Your task to perform on an android device: open device folders in google photos Image 0: 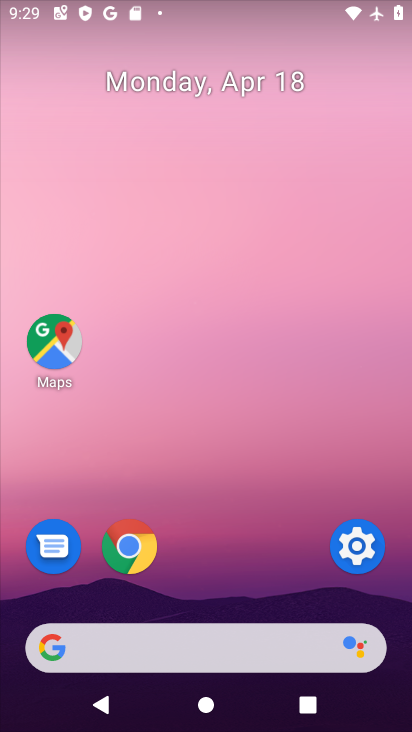
Step 0: drag from (273, 529) to (220, 127)
Your task to perform on an android device: open device folders in google photos Image 1: 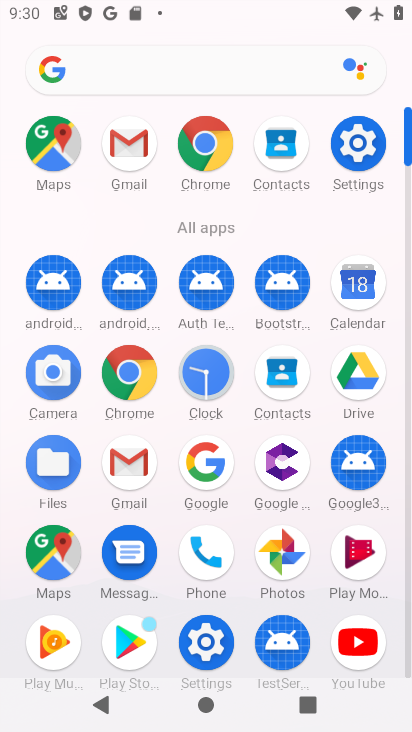
Step 1: click (290, 547)
Your task to perform on an android device: open device folders in google photos Image 2: 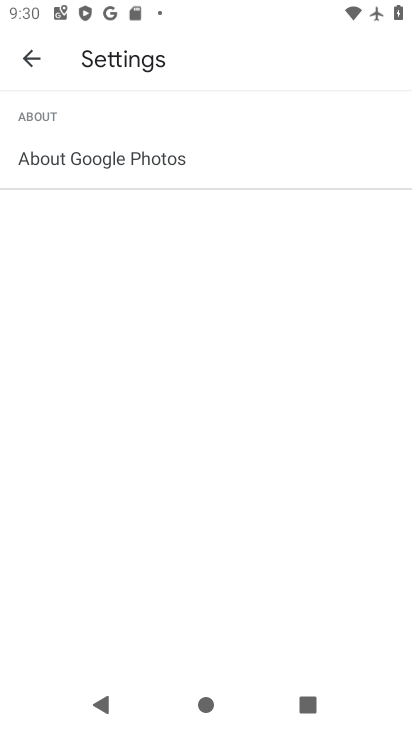
Step 2: press back button
Your task to perform on an android device: open device folders in google photos Image 3: 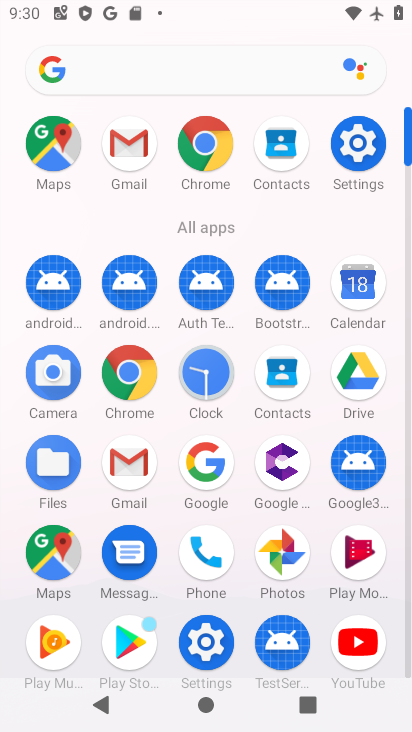
Step 3: click (267, 558)
Your task to perform on an android device: open device folders in google photos Image 4: 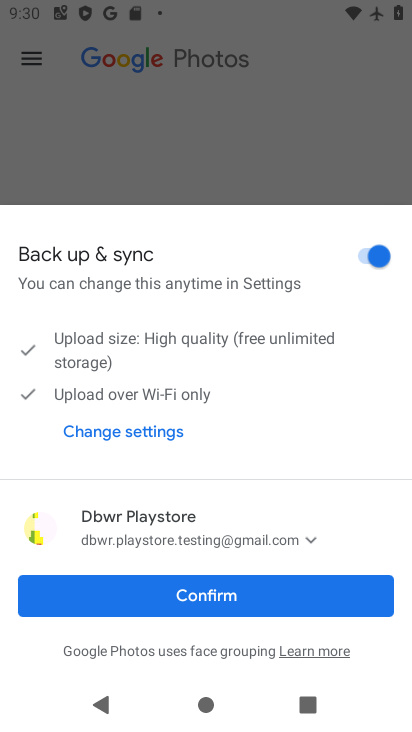
Step 4: click (220, 592)
Your task to perform on an android device: open device folders in google photos Image 5: 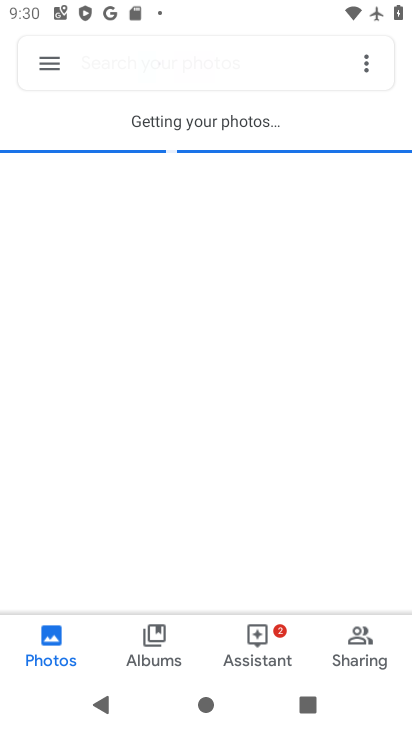
Step 5: click (42, 78)
Your task to perform on an android device: open device folders in google photos Image 6: 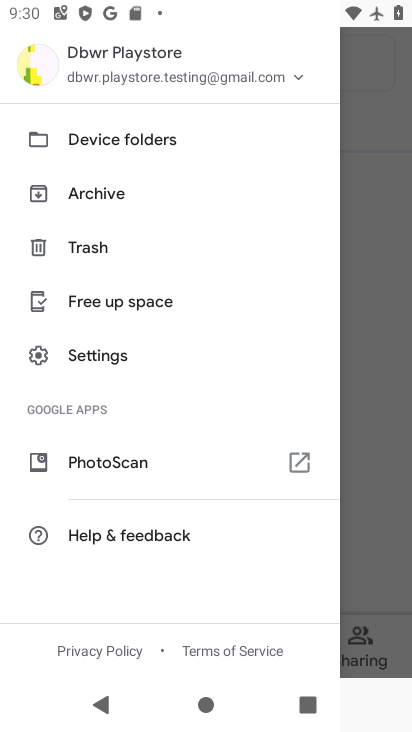
Step 6: click (74, 145)
Your task to perform on an android device: open device folders in google photos Image 7: 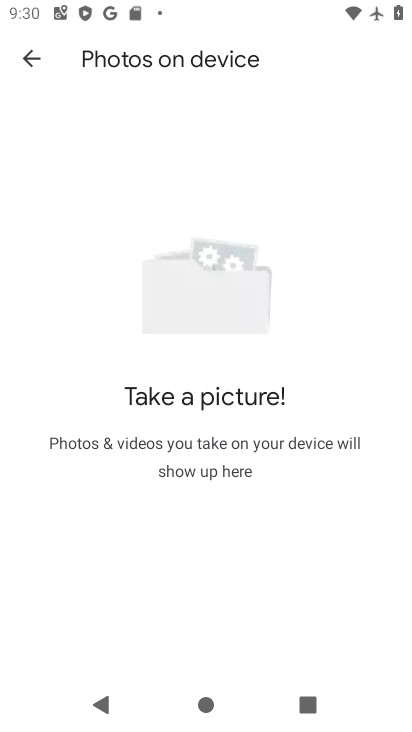
Step 7: task complete